Your task to perform on an android device: turn smart compose on in the gmail app Image 0: 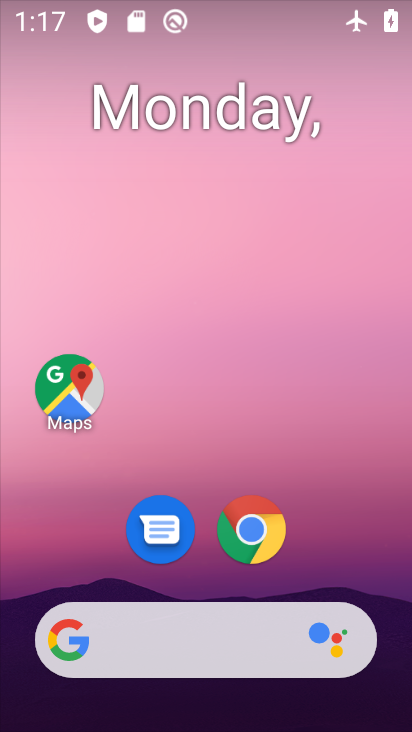
Step 0: drag from (300, 522) to (241, 23)
Your task to perform on an android device: turn smart compose on in the gmail app Image 1: 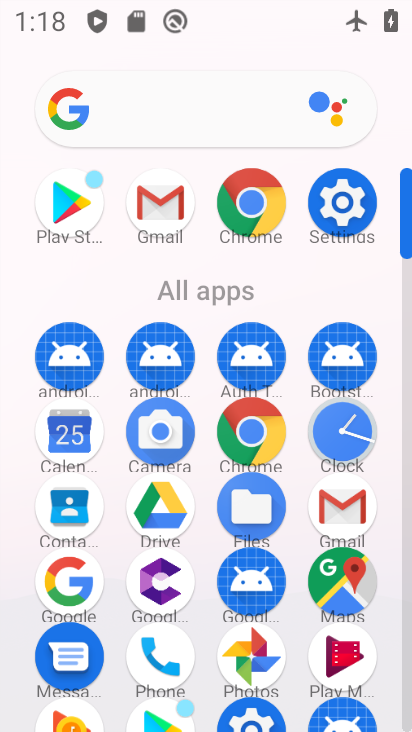
Step 1: click (163, 208)
Your task to perform on an android device: turn smart compose on in the gmail app Image 2: 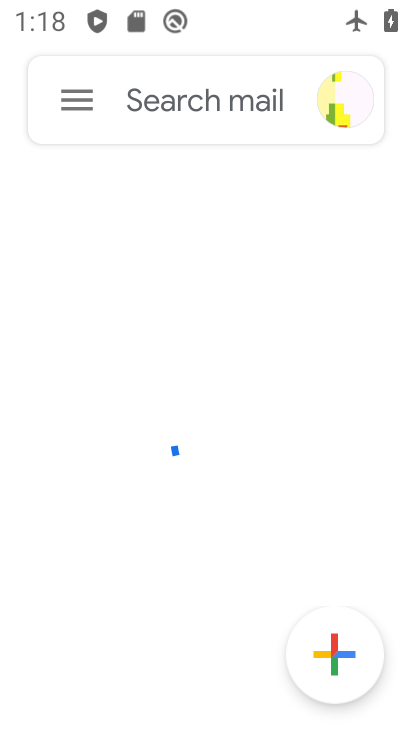
Step 2: click (83, 93)
Your task to perform on an android device: turn smart compose on in the gmail app Image 3: 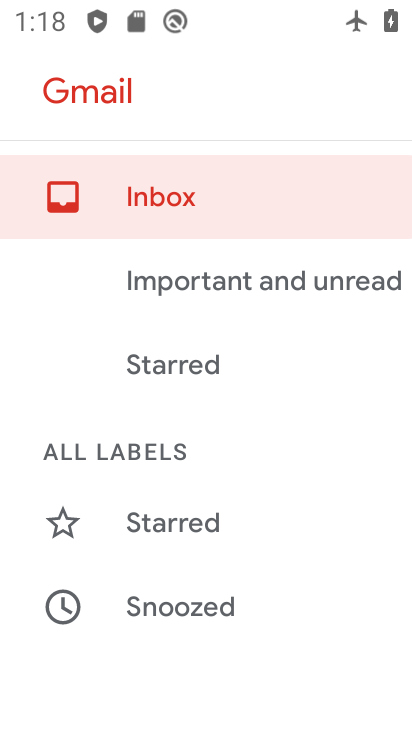
Step 3: drag from (222, 545) to (252, 136)
Your task to perform on an android device: turn smart compose on in the gmail app Image 4: 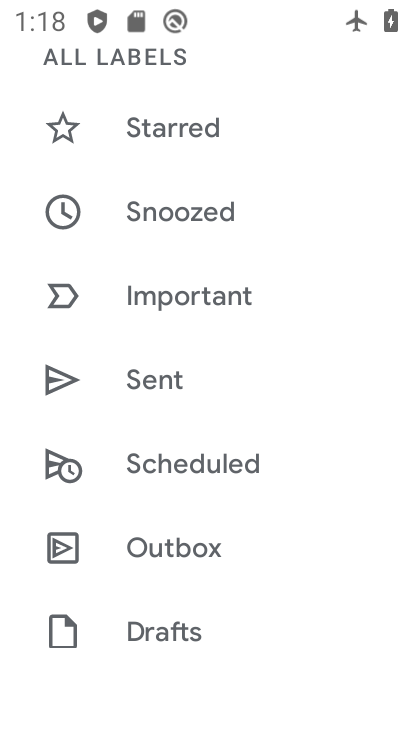
Step 4: drag from (253, 473) to (258, 83)
Your task to perform on an android device: turn smart compose on in the gmail app Image 5: 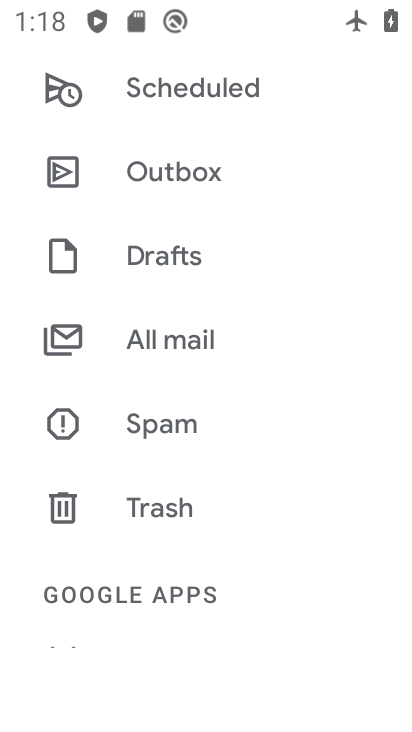
Step 5: drag from (249, 575) to (326, 137)
Your task to perform on an android device: turn smart compose on in the gmail app Image 6: 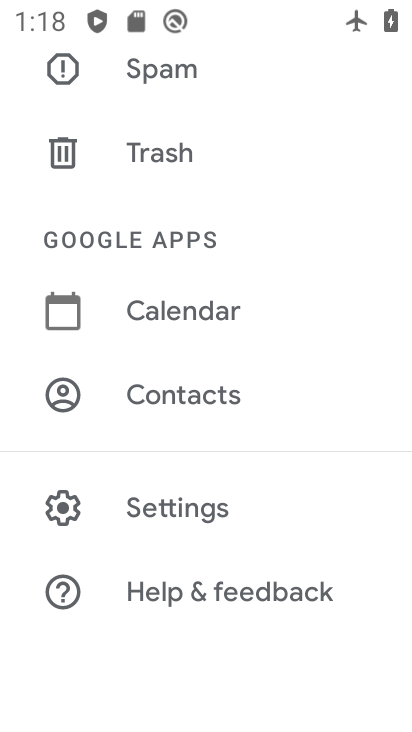
Step 6: click (220, 490)
Your task to perform on an android device: turn smart compose on in the gmail app Image 7: 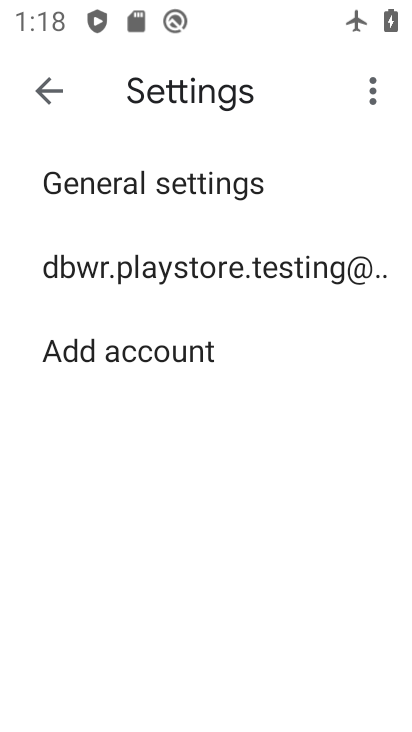
Step 7: click (111, 276)
Your task to perform on an android device: turn smart compose on in the gmail app Image 8: 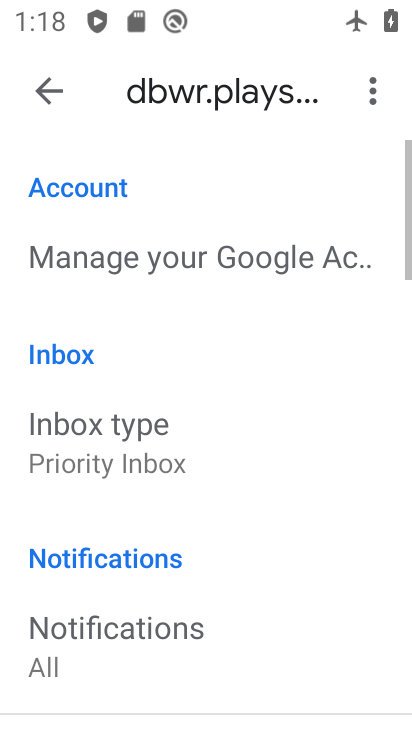
Step 8: task complete